Your task to perform on an android device: open device folders in google photos Image 0: 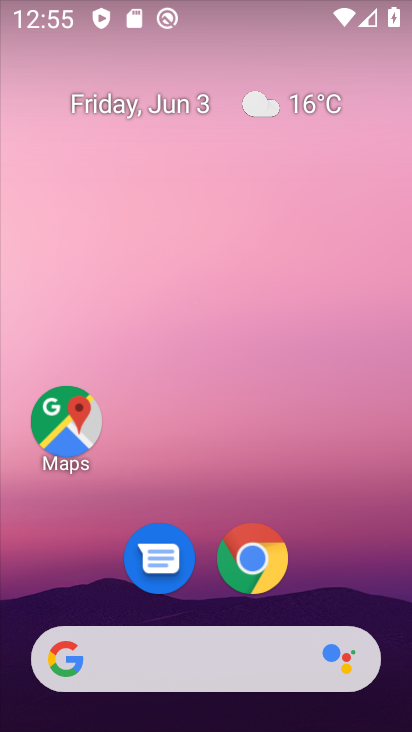
Step 0: drag from (350, 539) to (330, 186)
Your task to perform on an android device: open device folders in google photos Image 1: 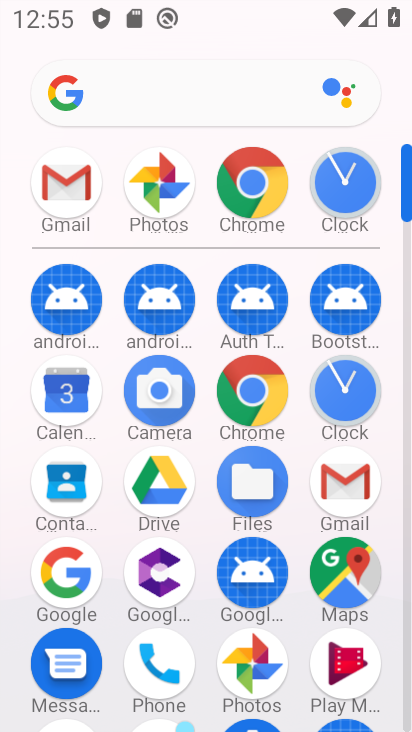
Step 1: click (240, 660)
Your task to perform on an android device: open device folders in google photos Image 2: 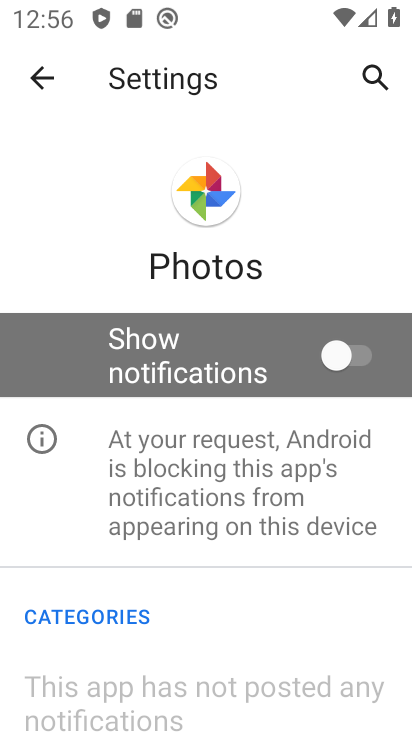
Step 2: press back button
Your task to perform on an android device: open device folders in google photos Image 3: 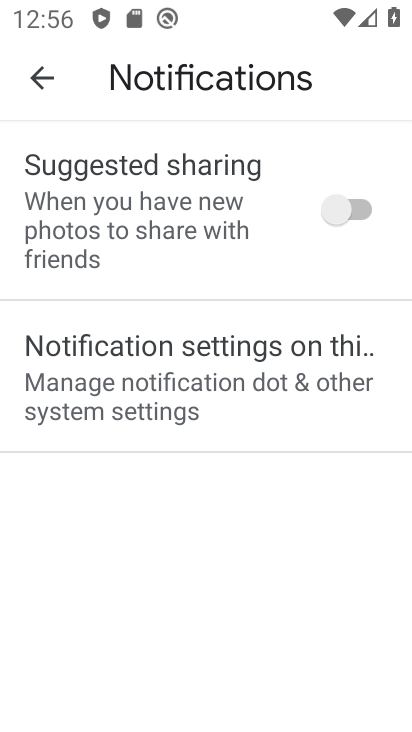
Step 3: press back button
Your task to perform on an android device: open device folders in google photos Image 4: 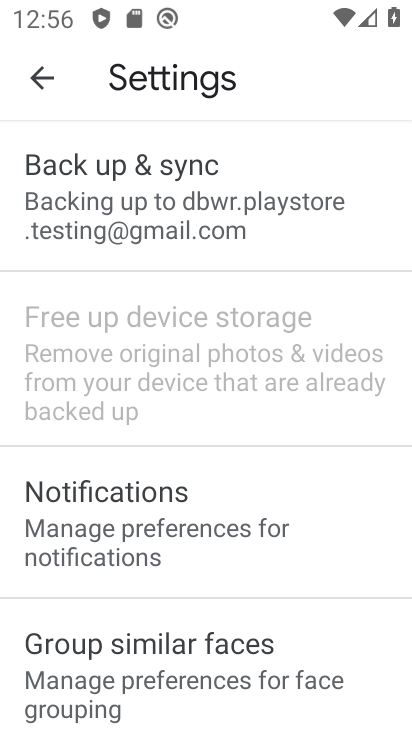
Step 4: press back button
Your task to perform on an android device: open device folders in google photos Image 5: 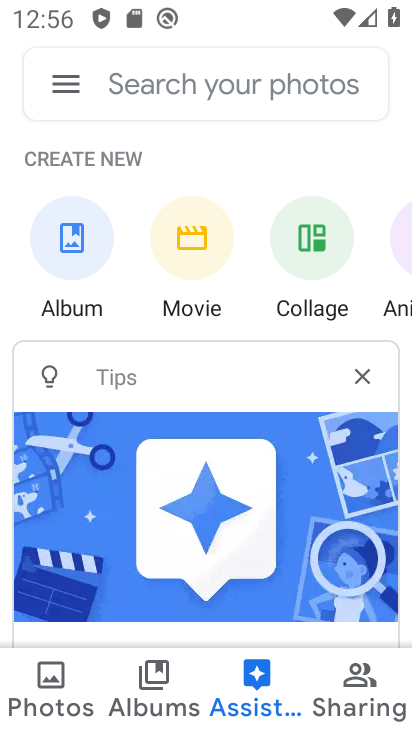
Step 5: click (70, 88)
Your task to perform on an android device: open device folders in google photos Image 6: 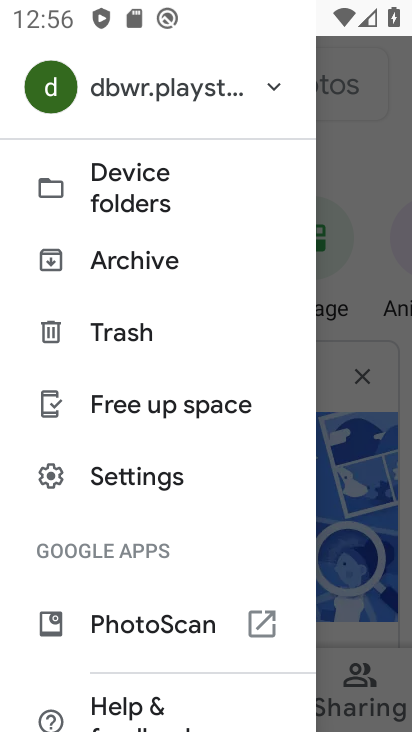
Step 6: click (121, 184)
Your task to perform on an android device: open device folders in google photos Image 7: 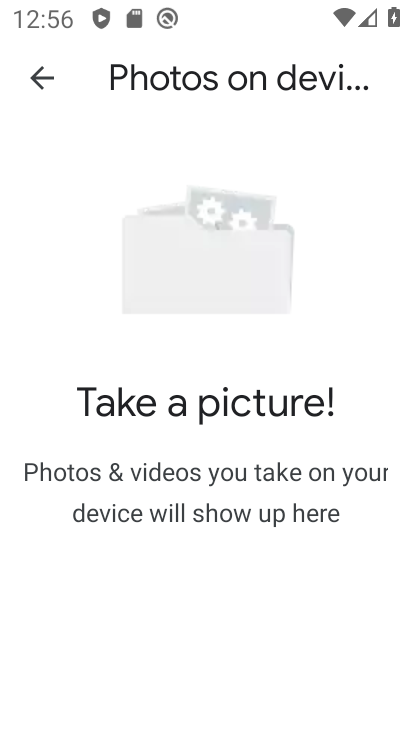
Step 7: task complete